Your task to perform on an android device: Open calendar and show me the first week of next month Image 0: 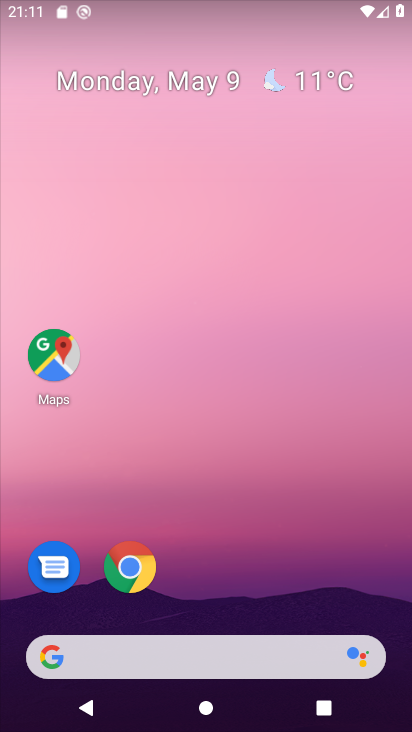
Step 0: drag from (276, 528) to (254, 95)
Your task to perform on an android device: Open calendar and show me the first week of next month Image 1: 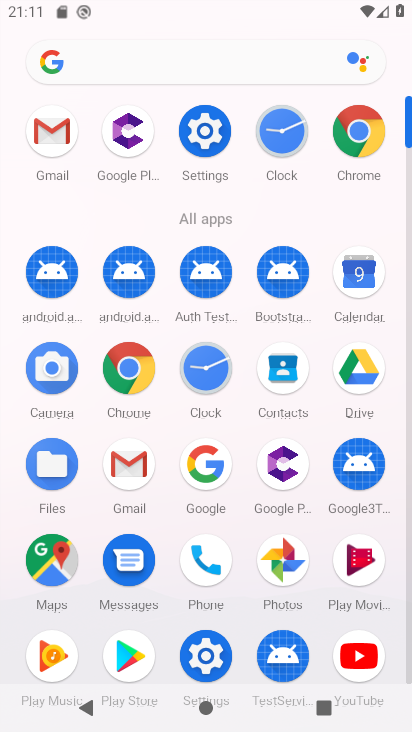
Step 1: click (357, 279)
Your task to perform on an android device: Open calendar and show me the first week of next month Image 2: 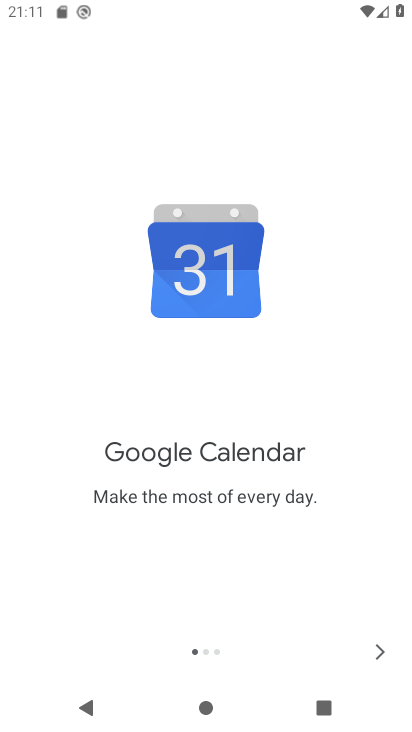
Step 2: click (363, 646)
Your task to perform on an android device: Open calendar and show me the first week of next month Image 3: 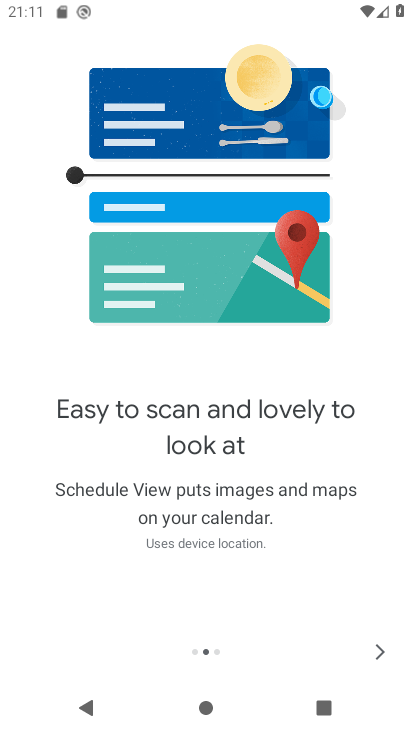
Step 3: click (367, 648)
Your task to perform on an android device: Open calendar and show me the first week of next month Image 4: 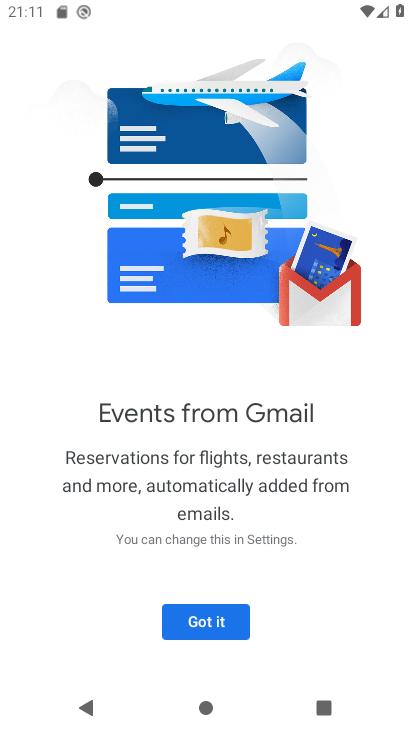
Step 4: click (233, 617)
Your task to perform on an android device: Open calendar and show me the first week of next month Image 5: 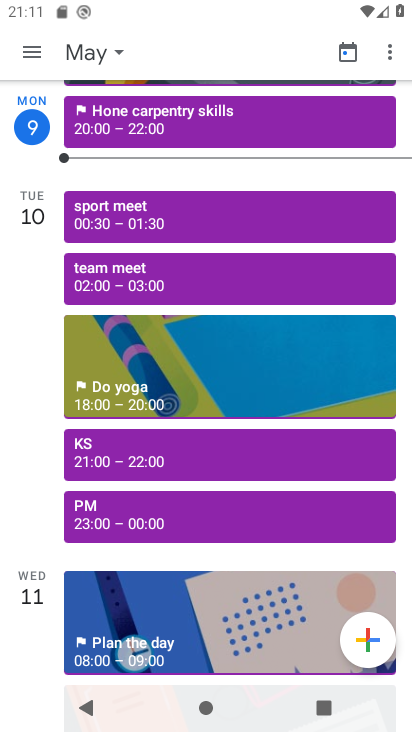
Step 5: click (32, 53)
Your task to perform on an android device: Open calendar and show me the first week of next month Image 6: 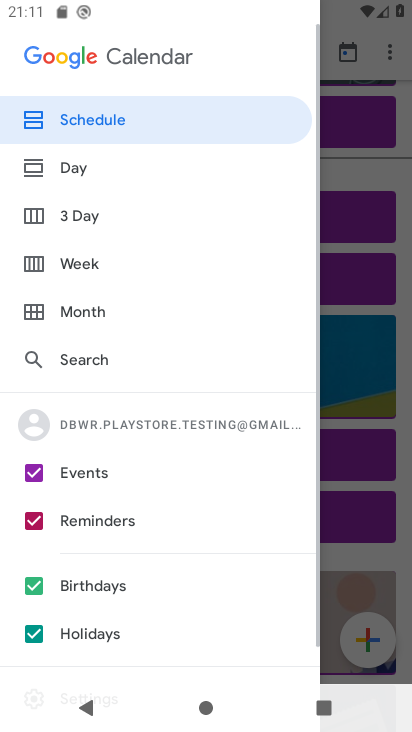
Step 6: click (78, 263)
Your task to perform on an android device: Open calendar and show me the first week of next month Image 7: 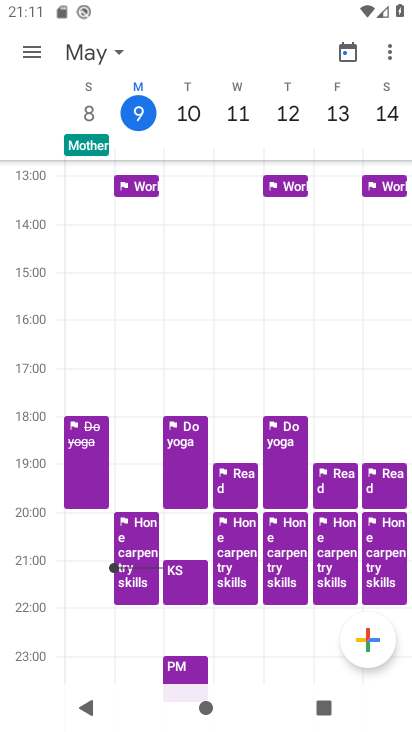
Step 7: click (116, 51)
Your task to perform on an android device: Open calendar and show me the first week of next month Image 8: 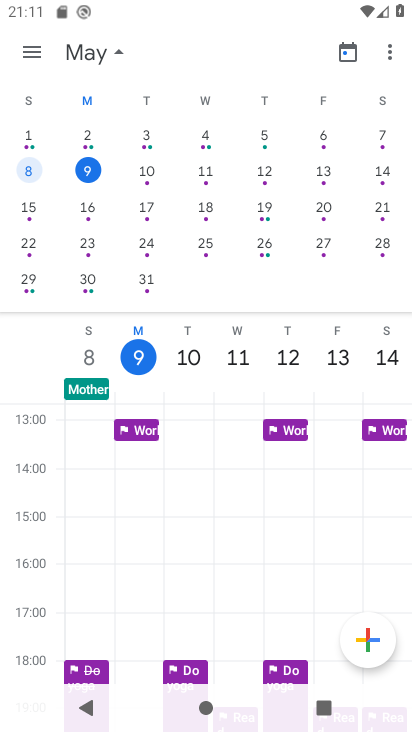
Step 8: task complete